Your task to perform on an android device: Search for macbook pro on ebay, select the first entry, and add it to the cart. Image 0: 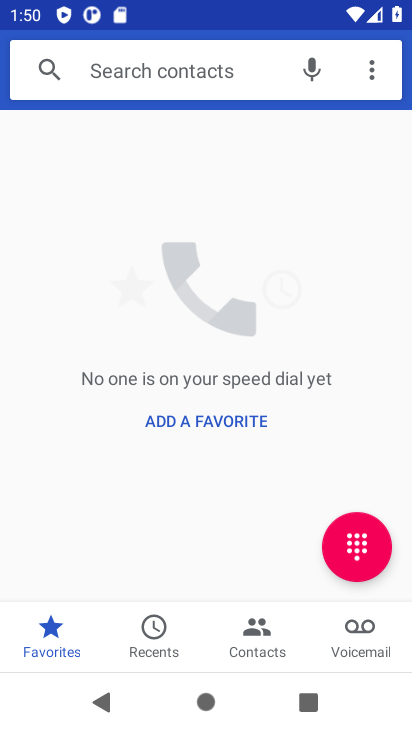
Step 0: press home button
Your task to perform on an android device: Search for macbook pro on ebay, select the first entry, and add it to the cart. Image 1: 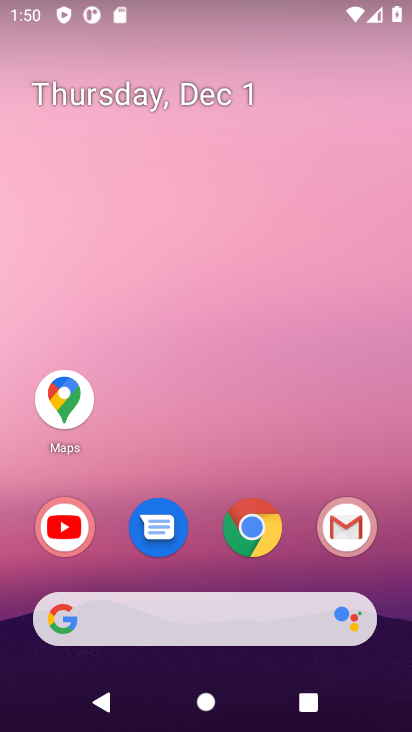
Step 1: click (253, 535)
Your task to perform on an android device: Search for macbook pro on ebay, select the first entry, and add it to the cart. Image 2: 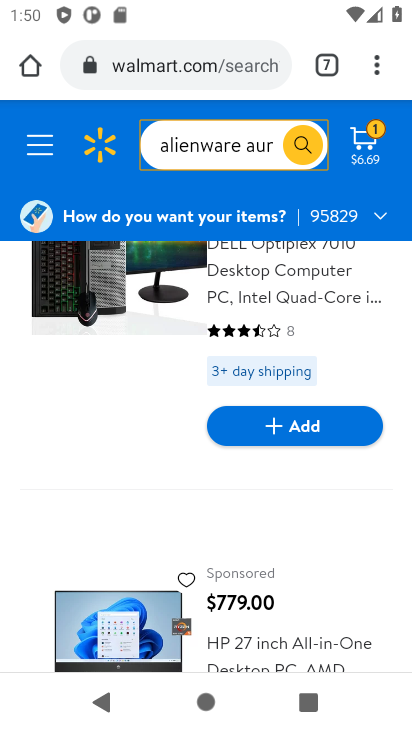
Step 2: click (181, 64)
Your task to perform on an android device: Search for macbook pro on ebay, select the first entry, and add it to the cart. Image 3: 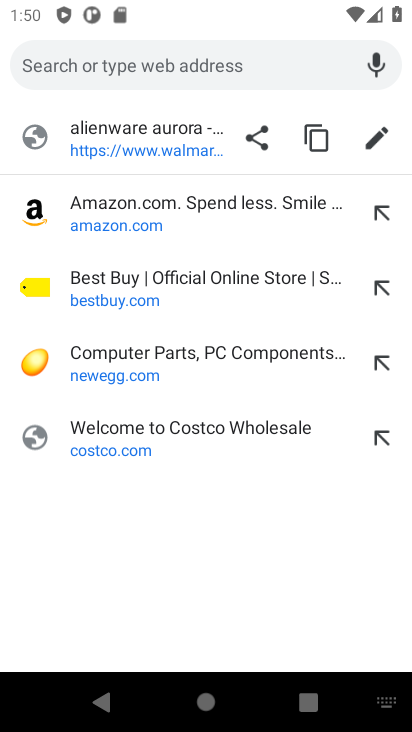
Step 3: type "ebay.com"
Your task to perform on an android device: Search for macbook pro on ebay, select the first entry, and add it to the cart. Image 4: 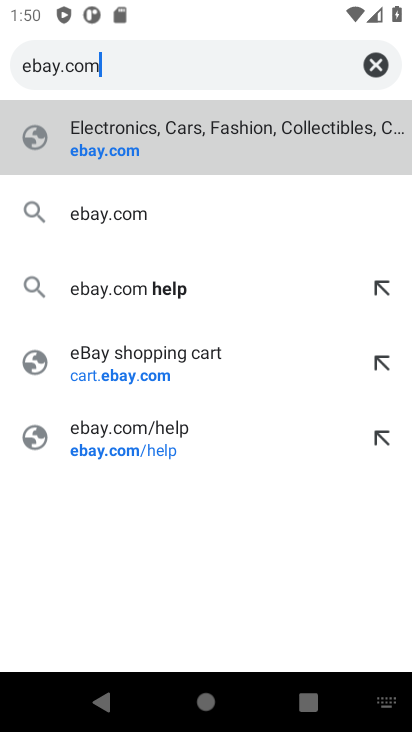
Step 4: click (116, 154)
Your task to perform on an android device: Search for macbook pro on ebay, select the first entry, and add it to the cart. Image 5: 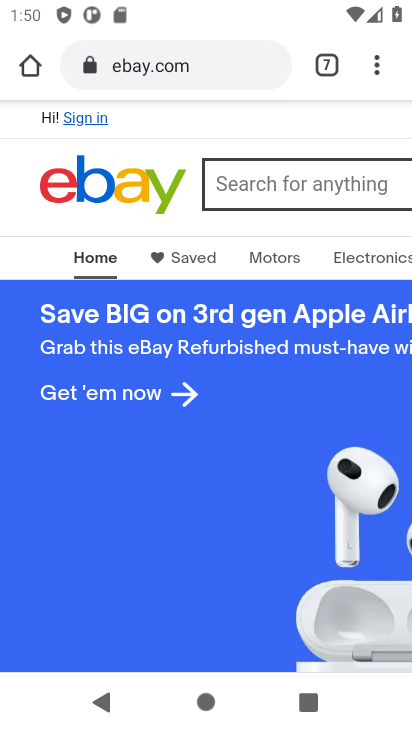
Step 5: click (266, 187)
Your task to perform on an android device: Search for macbook pro on ebay, select the first entry, and add it to the cart. Image 6: 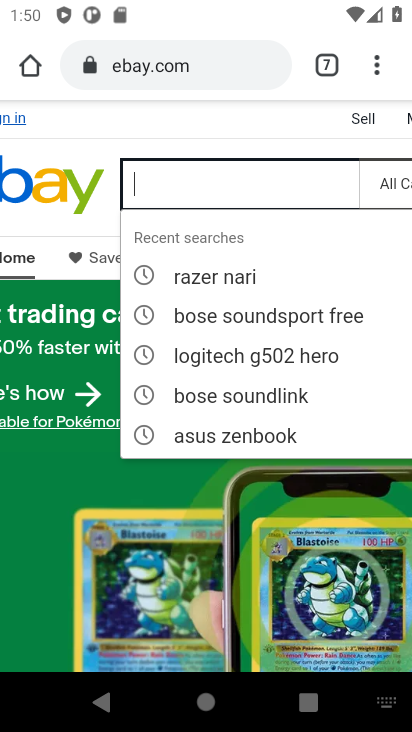
Step 6: type "macbook pro "
Your task to perform on an android device: Search for macbook pro on ebay, select the first entry, and add it to the cart. Image 7: 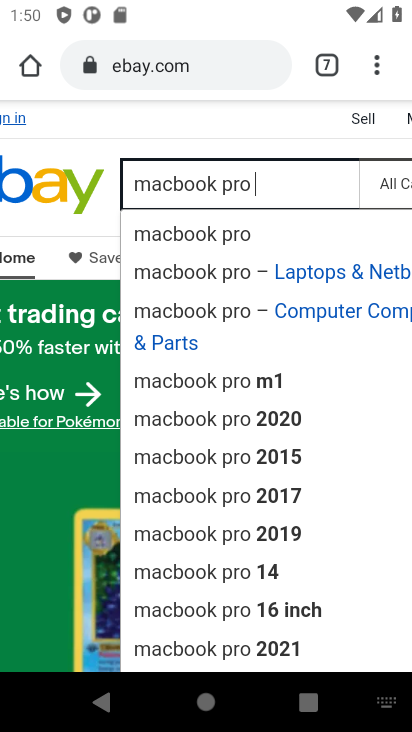
Step 7: click (197, 239)
Your task to perform on an android device: Search for macbook pro on ebay, select the first entry, and add it to the cart. Image 8: 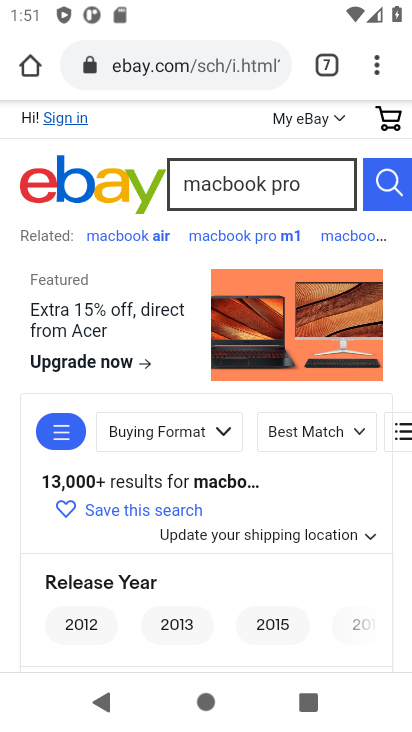
Step 8: drag from (209, 508) to (228, 213)
Your task to perform on an android device: Search for macbook pro on ebay, select the first entry, and add it to the cart. Image 9: 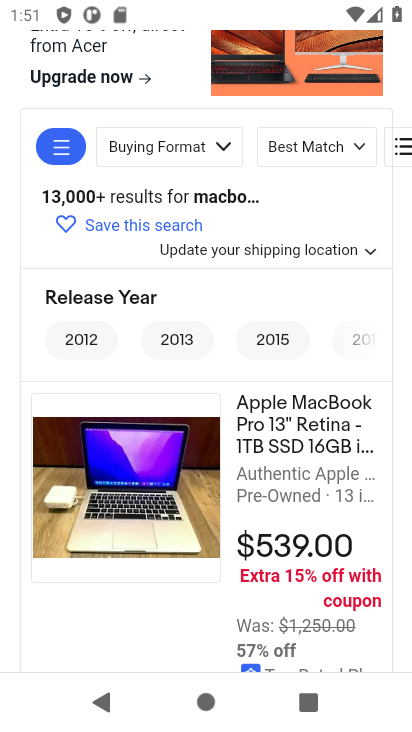
Step 9: drag from (188, 454) to (184, 270)
Your task to perform on an android device: Search for macbook pro on ebay, select the first entry, and add it to the cart. Image 10: 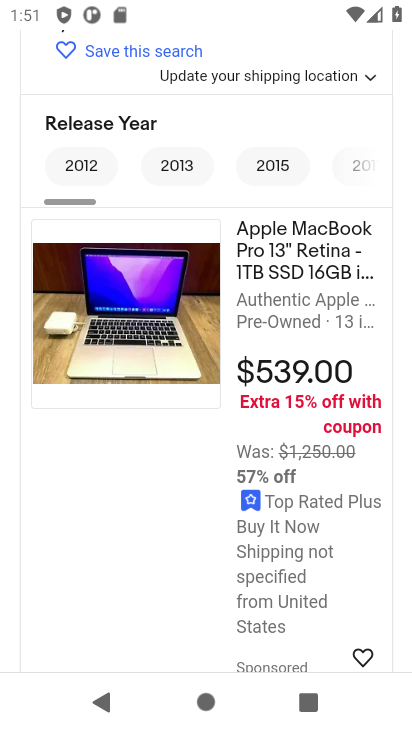
Step 10: click (297, 307)
Your task to perform on an android device: Search for macbook pro on ebay, select the first entry, and add it to the cart. Image 11: 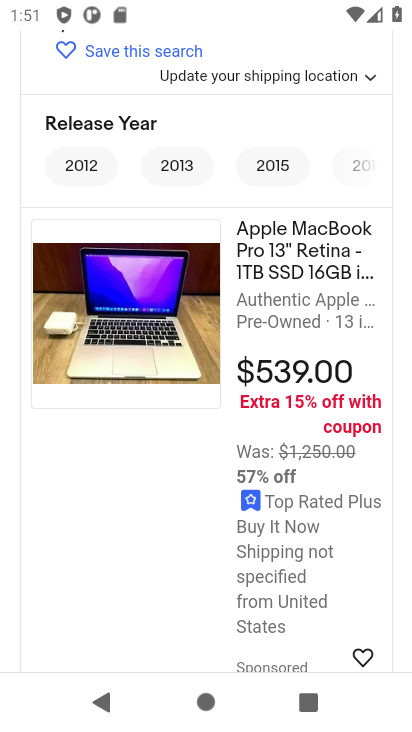
Step 11: click (288, 272)
Your task to perform on an android device: Search for macbook pro on ebay, select the first entry, and add it to the cart. Image 12: 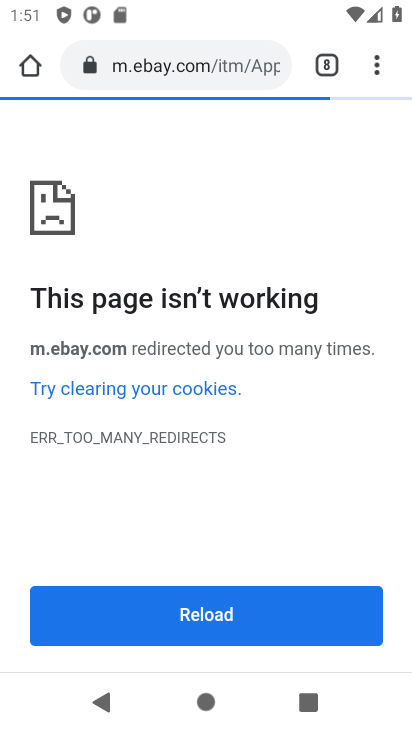
Step 12: task complete